Your task to perform on an android device: Open settings Image 0: 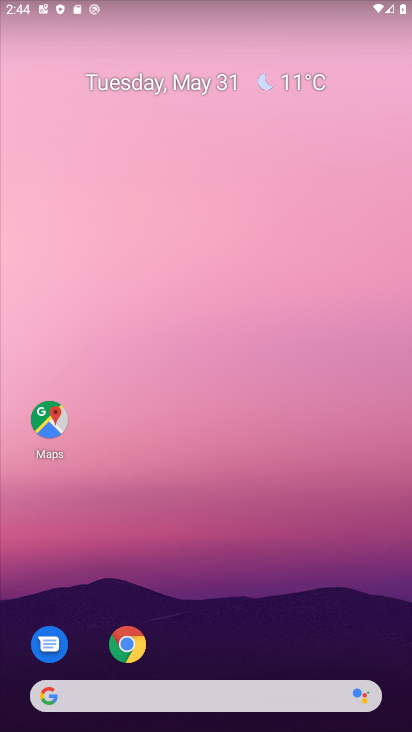
Step 0: drag from (293, 613) to (302, 2)
Your task to perform on an android device: Open settings Image 1: 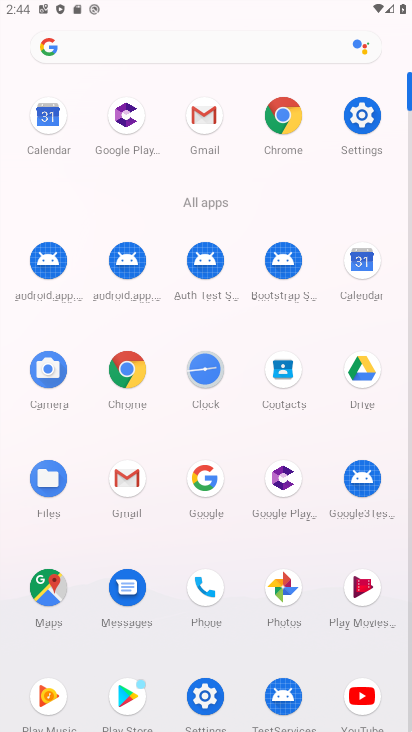
Step 1: click (358, 112)
Your task to perform on an android device: Open settings Image 2: 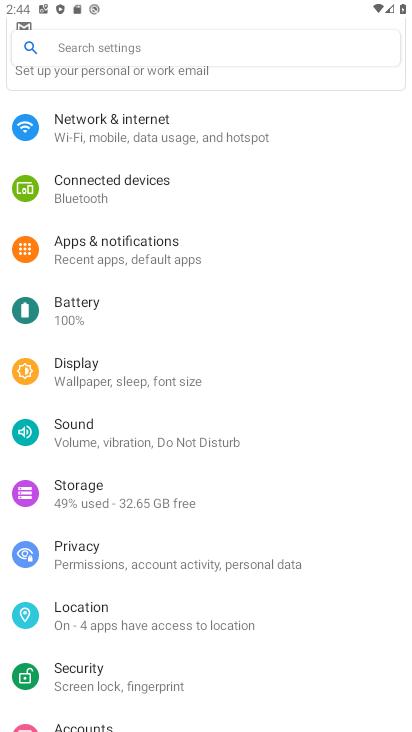
Step 2: task complete